Your task to perform on an android device: change notifications settings Image 0: 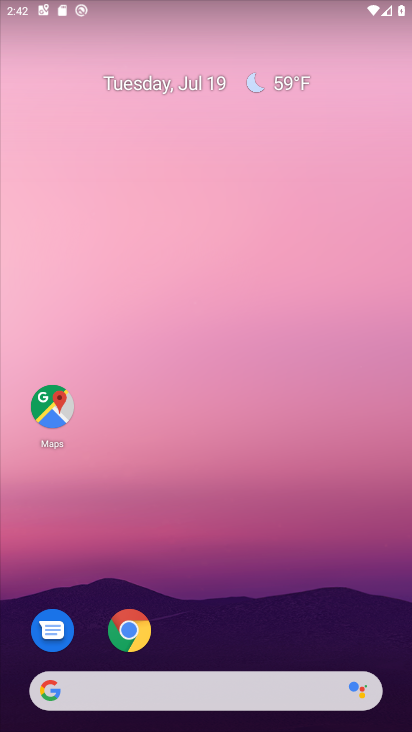
Step 0: drag from (293, 543) to (250, 85)
Your task to perform on an android device: change notifications settings Image 1: 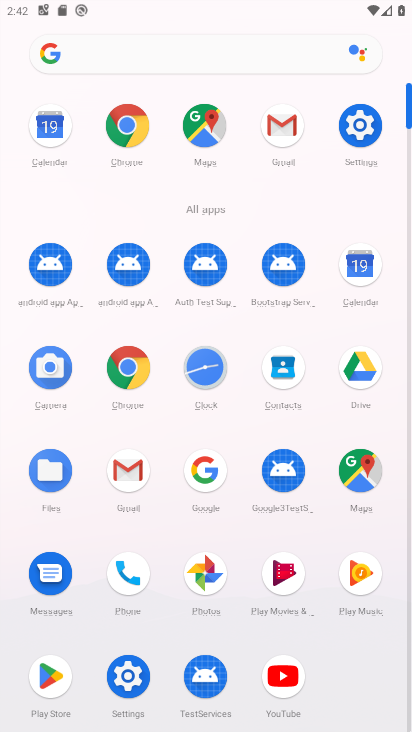
Step 1: click (358, 126)
Your task to perform on an android device: change notifications settings Image 2: 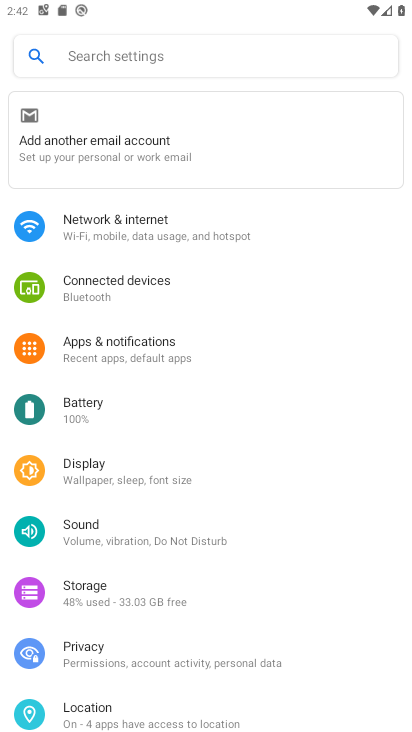
Step 2: click (112, 337)
Your task to perform on an android device: change notifications settings Image 3: 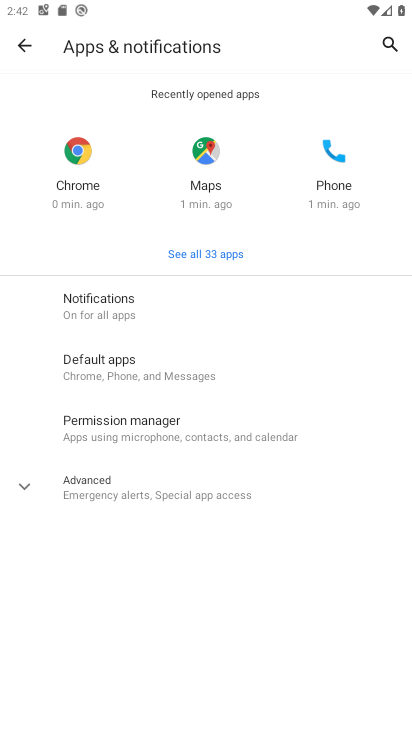
Step 3: click (87, 295)
Your task to perform on an android device: change notifications settings Image 4: 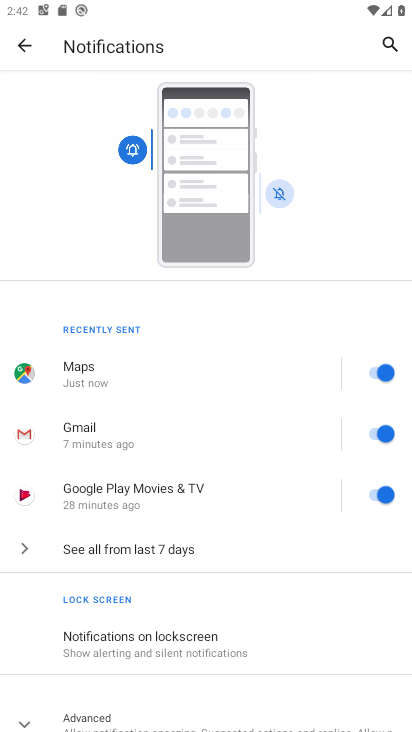
Step 4: click (125, 549)
Your task to perform on an android device: change notifications settings Image 5: 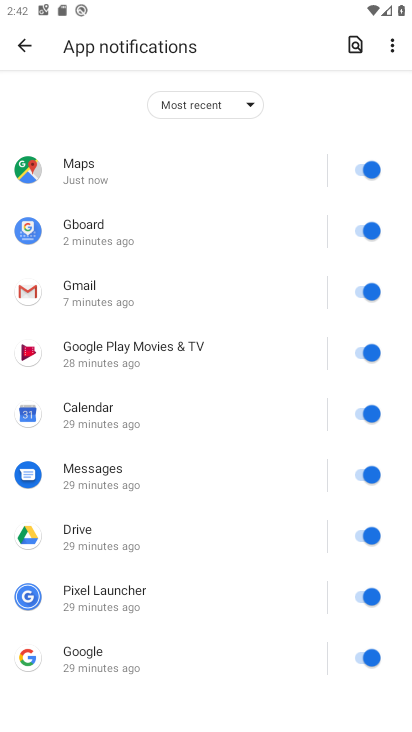
Step 5: click (249, 106)
Your task to perform on an android device: change notifications settings Image 6: 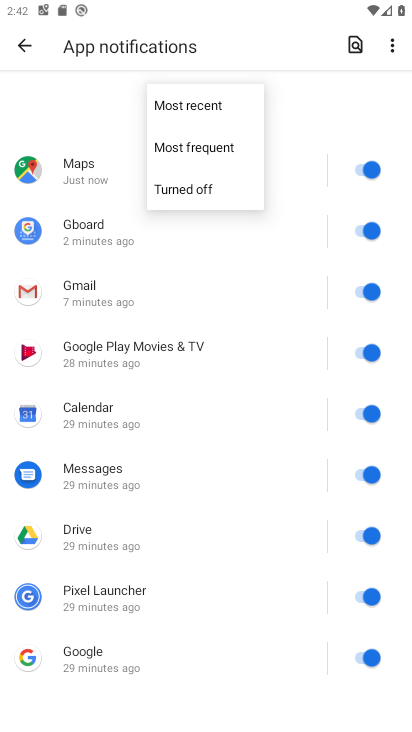
Step 6: click (191, 186)
Your task to perform on an android device: change notifications settings Image 7: 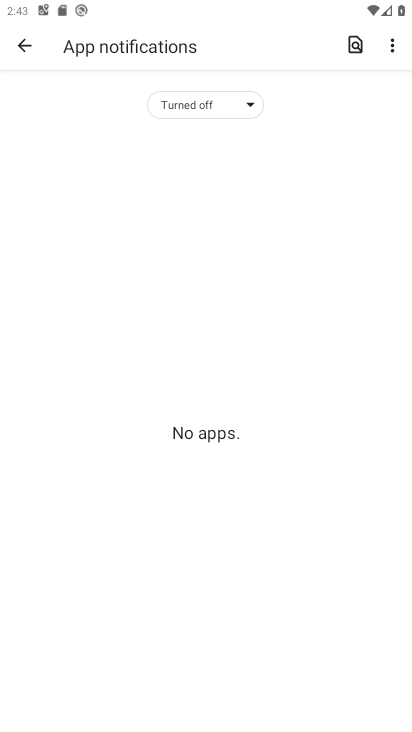
Step 7: task complete